Your task to perform on an android device: Clear the shopping cart on walmart. Search for usb-a to usb-b on walmart, select the first entry, and add it to the cart. Image 0: 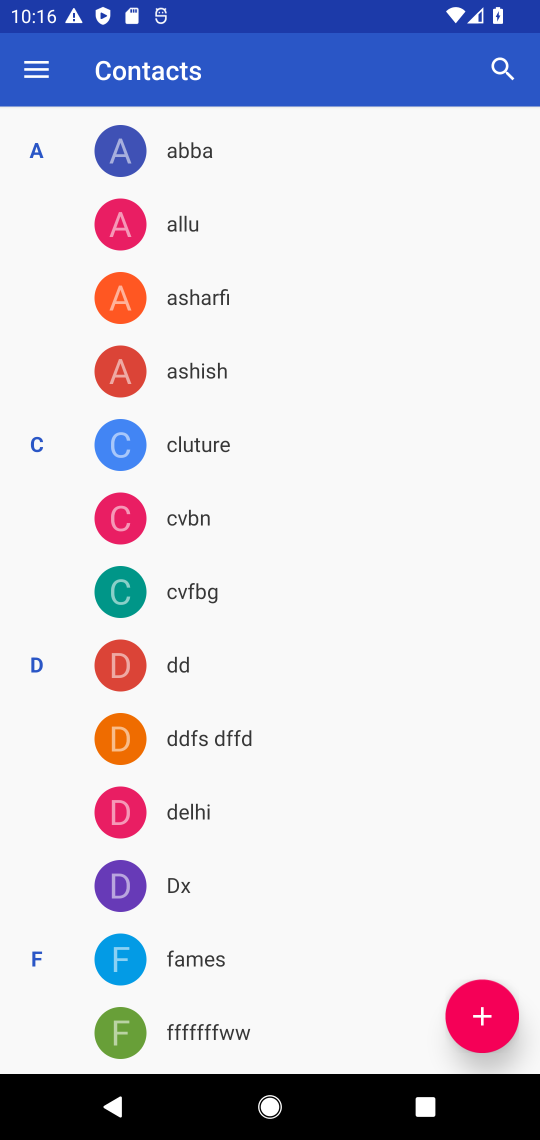
Step 0: press home button
Your task to perform on an android device: Clear the shopping cart on walmart. Search for usb-a to usb-b on walmart, select the first entry, and add it to the cart. Image 1: 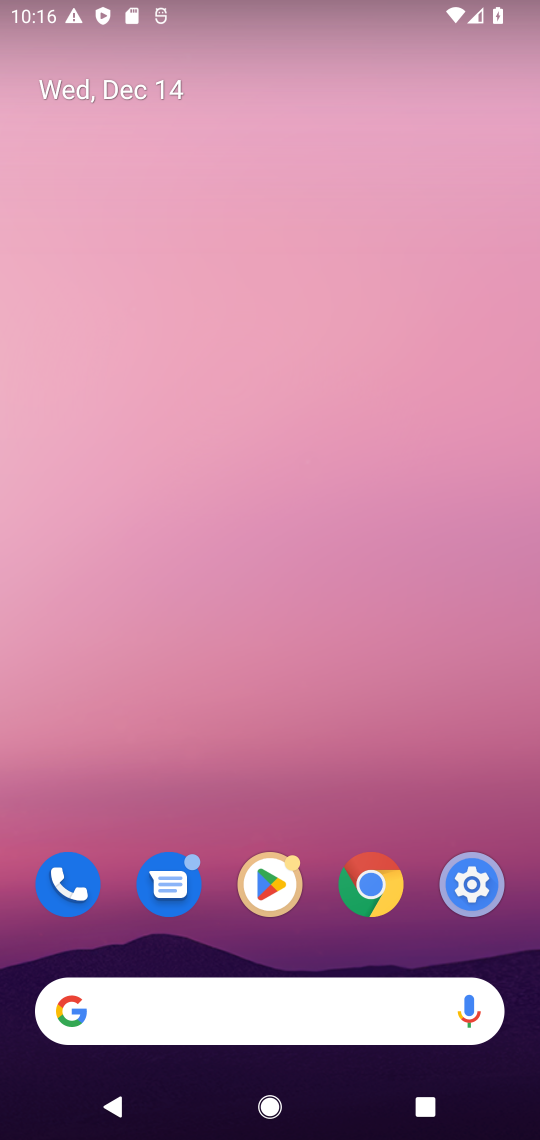
Step 1: click (384, 878)
Your task to perform on an android device: Clear the shopping cart on walmart. Search for usb-a to usb-b on walmart, select the first entry, and add it to the cart. Image 2: 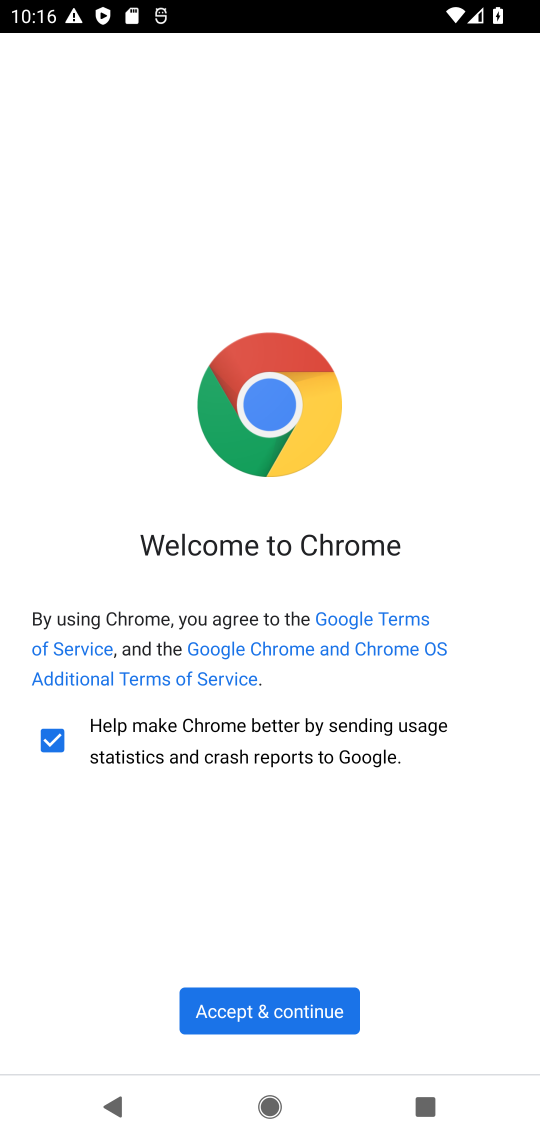
Step 2: click (308, 1014)
Your task to perform on an android device: Clear the shopping cart on walmart. Search for usb-a to usb-b on walmart, select the first entry, and add it to the cart. Image 3: 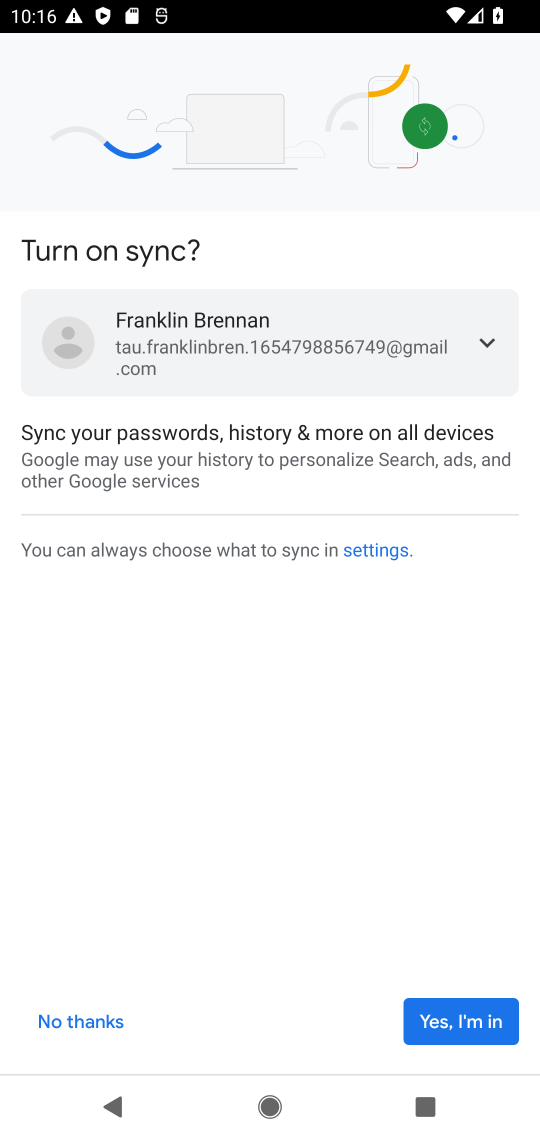
Step 3: click (453, 1014)
Your task to perform on an android device: Clear the shopping cart on walmart. Search for usb-a to usb-b on walmart, select the first entry, and add it to the cart. Image 4: 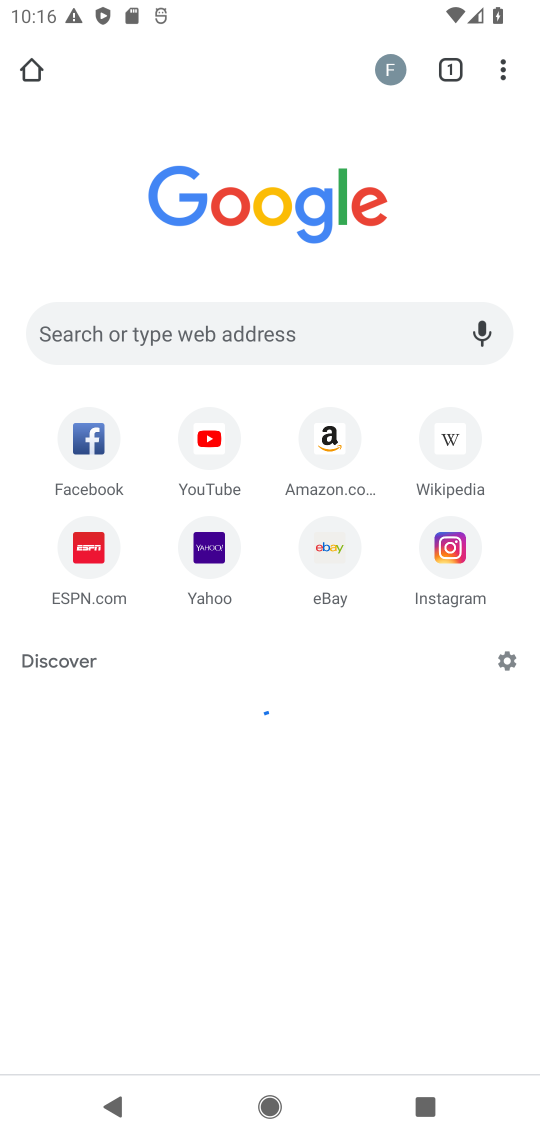
Step 4: click (333, 333)
Your task to perform on an android device: Clear the shopping cart on walmart. Search for usb-a to usb-b on walmart, select the first entry, and add it to the cart. Image 5: 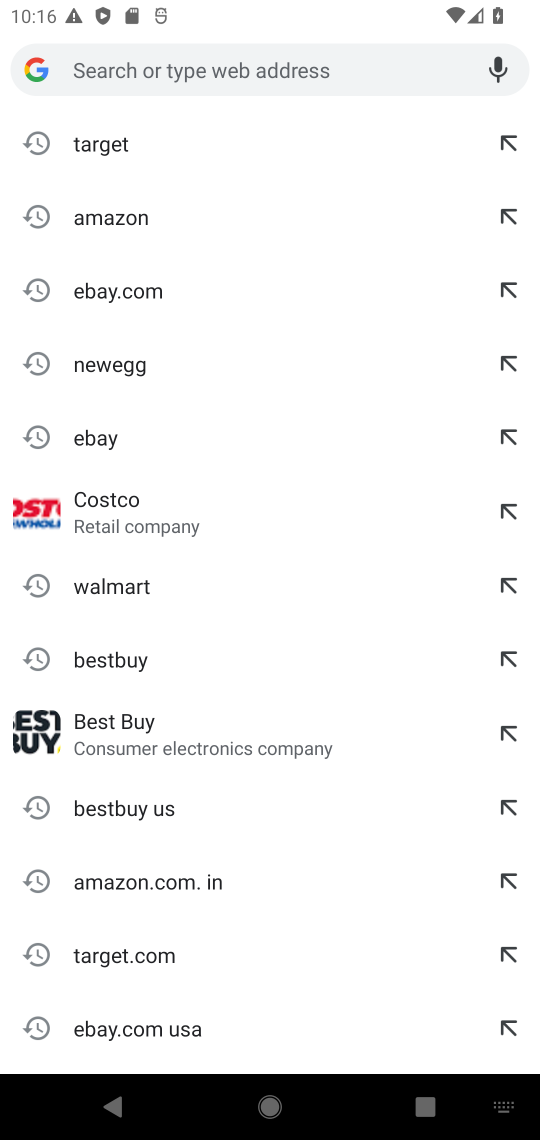
Step 5: click (129, 581)
Your task to perform on an android device: Clear the shopping cart on walmart. Search for usb-a to usb-b on walmart, select the first entry, and add it to the cart. Image 6: 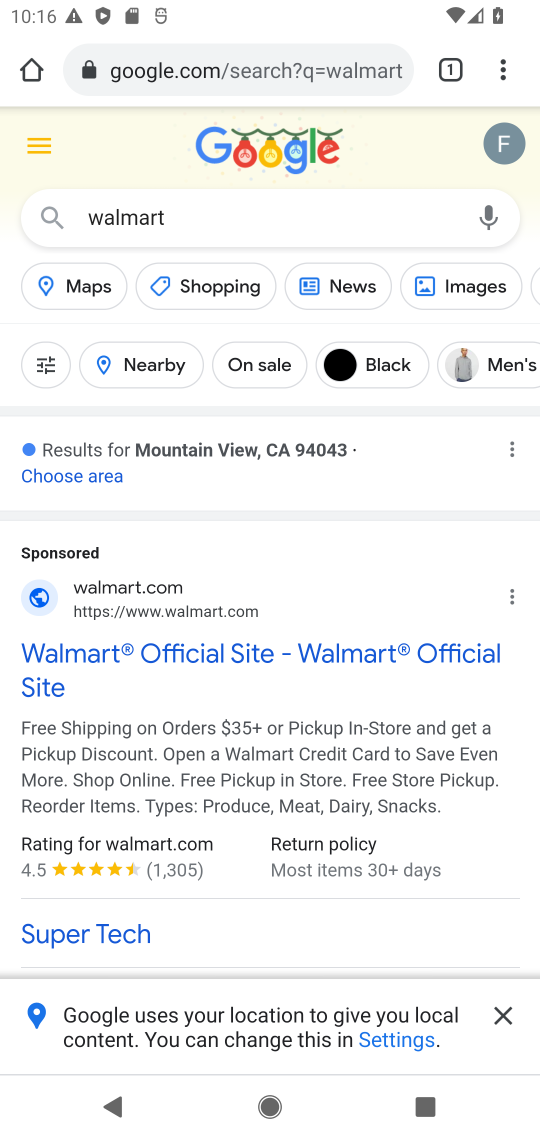
Step 6: drag from (291, 867) to (183, 496)
Your task to perform on an android device: Clear the shopping cart on walmart. Search for usb-a to usb-b on walmart, select the first entry, and add it to the cart. Image 7: 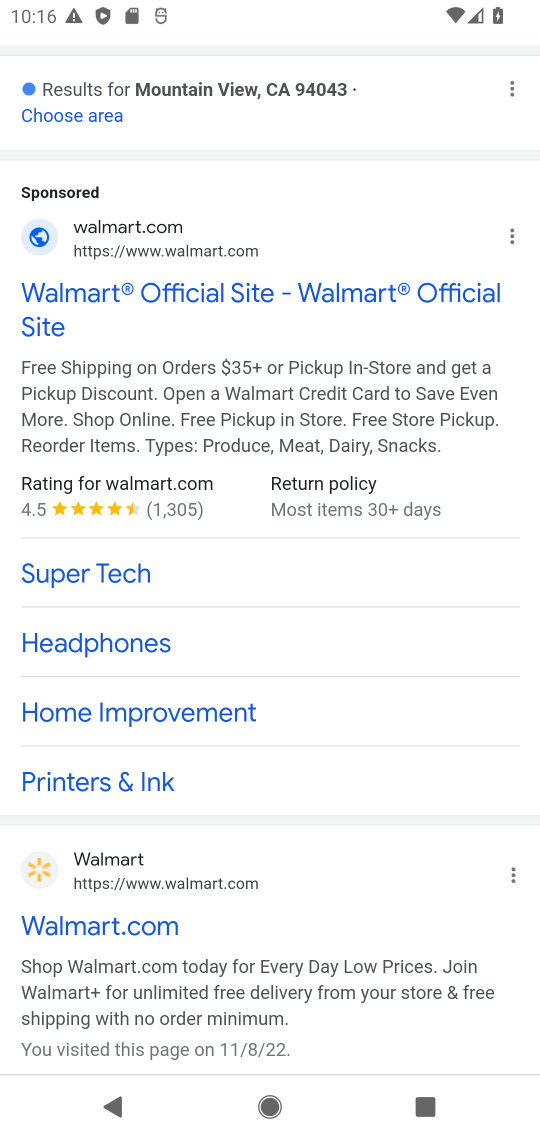
Step 7: click (187, 880)
Your task to perform on an android device: Clear the shopping cart on walmart. Search for usb-a to usb-b on walmart, select the first entry, and add it to the cart. Image 8: 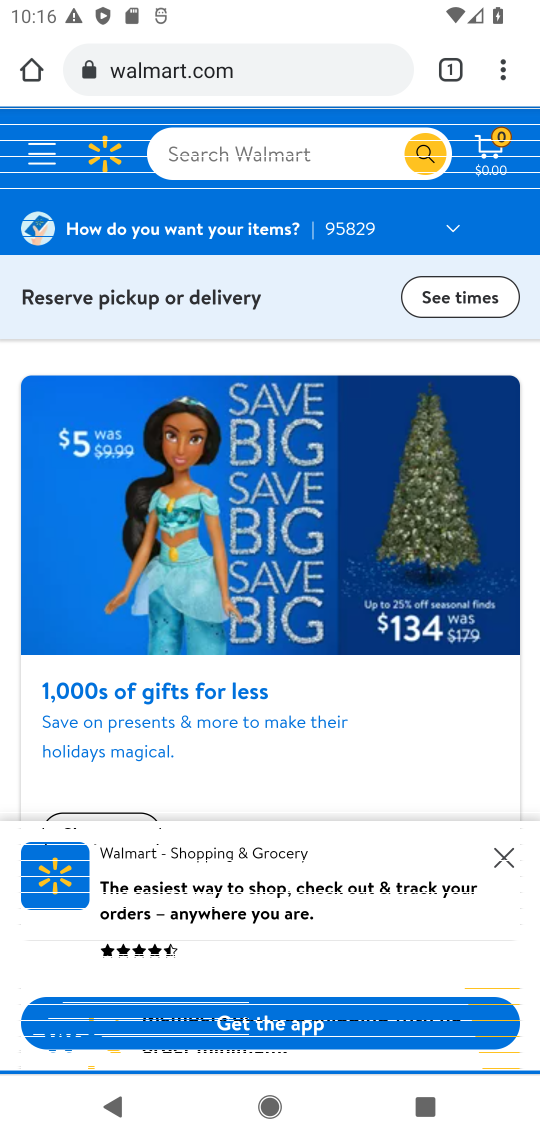
Step 8: click (368, 137)
Your task to perform on an android device: Clear the shopping cart on walmart. Search for usb-a to usb-b on walmart, select the first entry, and add it to the cart. Image 9: 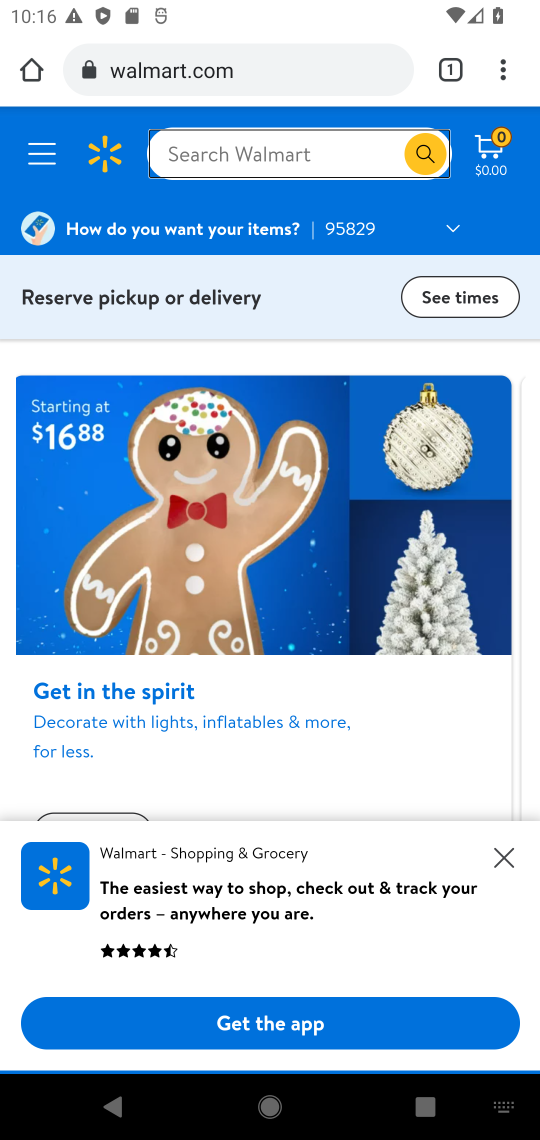
Step 9: click (481, 154)
Your task to perform on an android device: Clear the shopping cart on walmart. Search for usb-a to usb-b on walmart, select the first entry, and add it to the cart. Image 10: 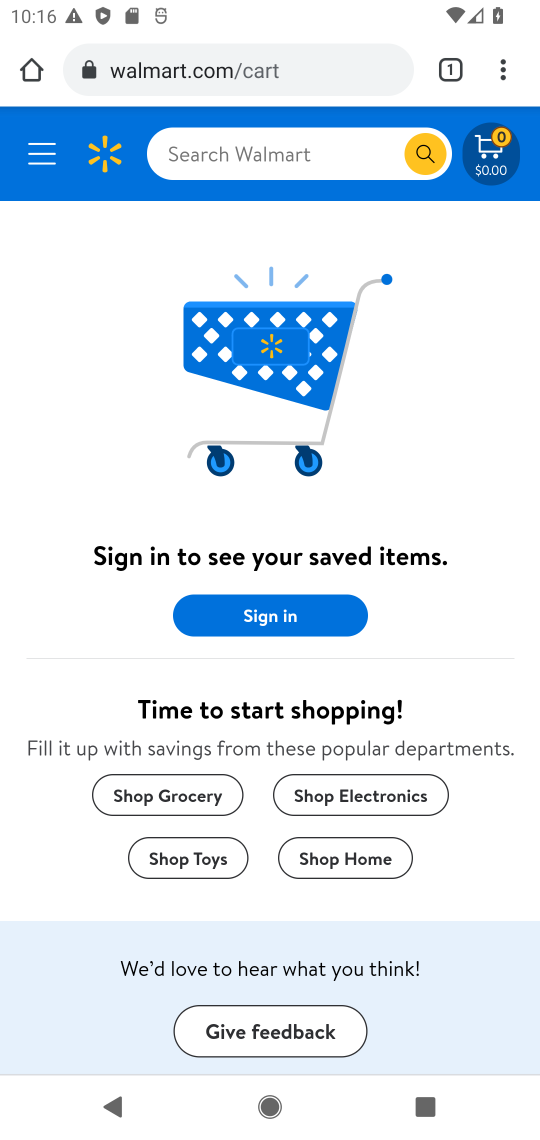
Step 10: click (292, 170)
Your task to perform on an android device: Clear the shopping cart on walmart. Search for usb-a to usb-b on walmart, select the first entry, and add it to the cart. Image 11: 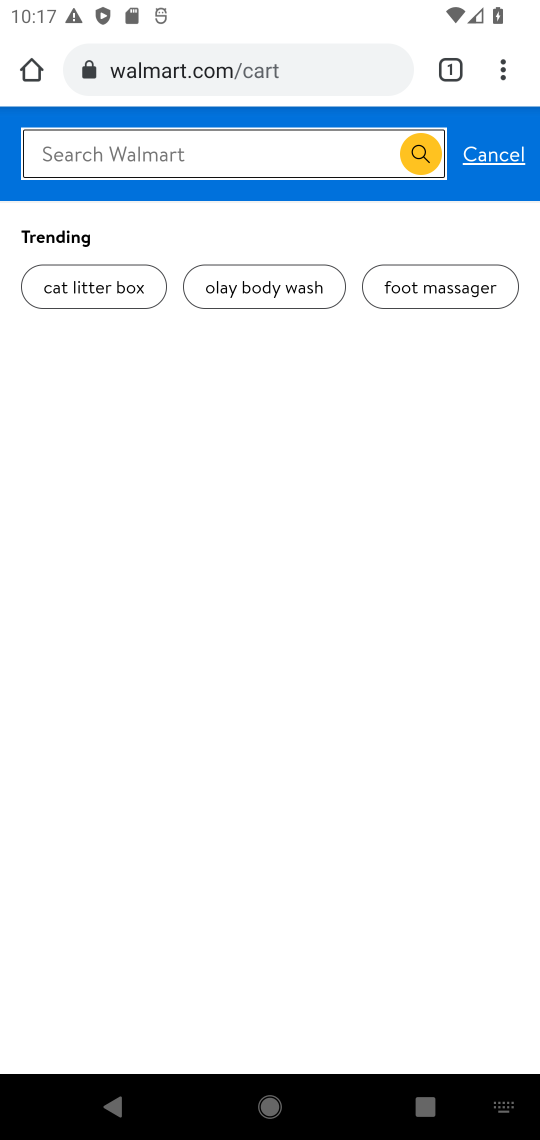
Step 11: press enter
Your task to perform on an android device: Clear the shopping cart on walmart. Search for usb-a to usb-b on walmart, select the first entry, and add it to the cart. Image 12: 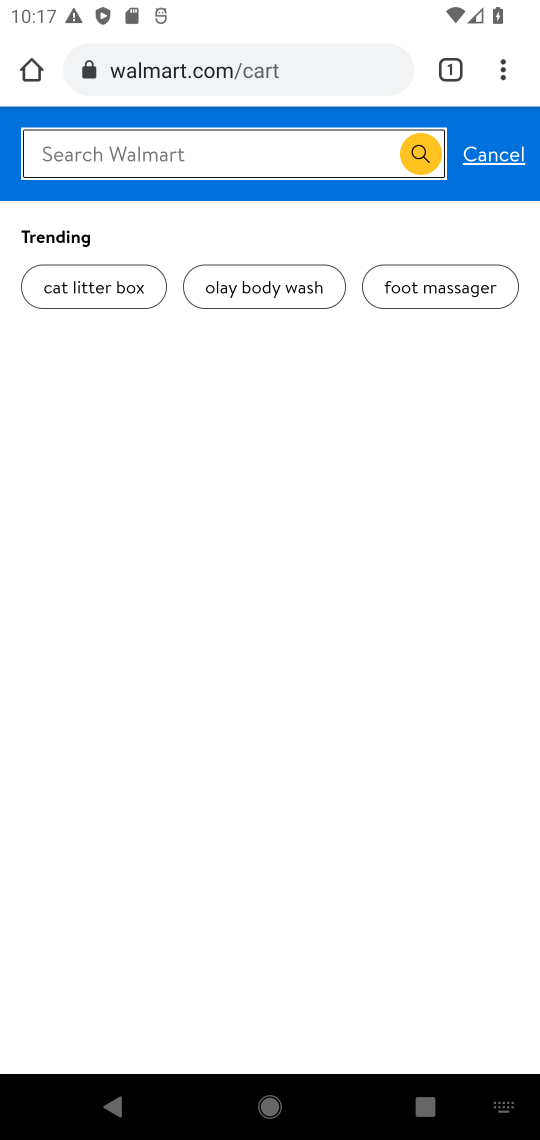
Step 12: type "usb-a to usb-b"
Your task to perform on an android device: Clear the shopping cart on walmart. Search for usb-a to usb-b on walmart, select the first entry, and add it to the cart. Image 13: 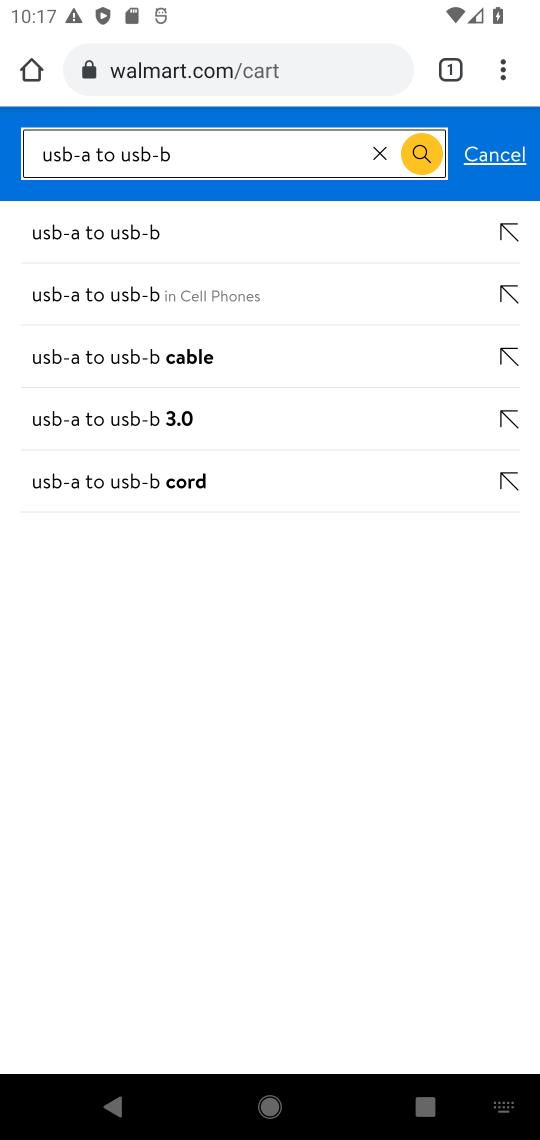
Step 13: click (103, 227)
Your task to perform on an android device: Clear the shopping cart on walmart. Search for usb-a to usb-b on walmart, select the first entry, and add it to the cart. Image 14: 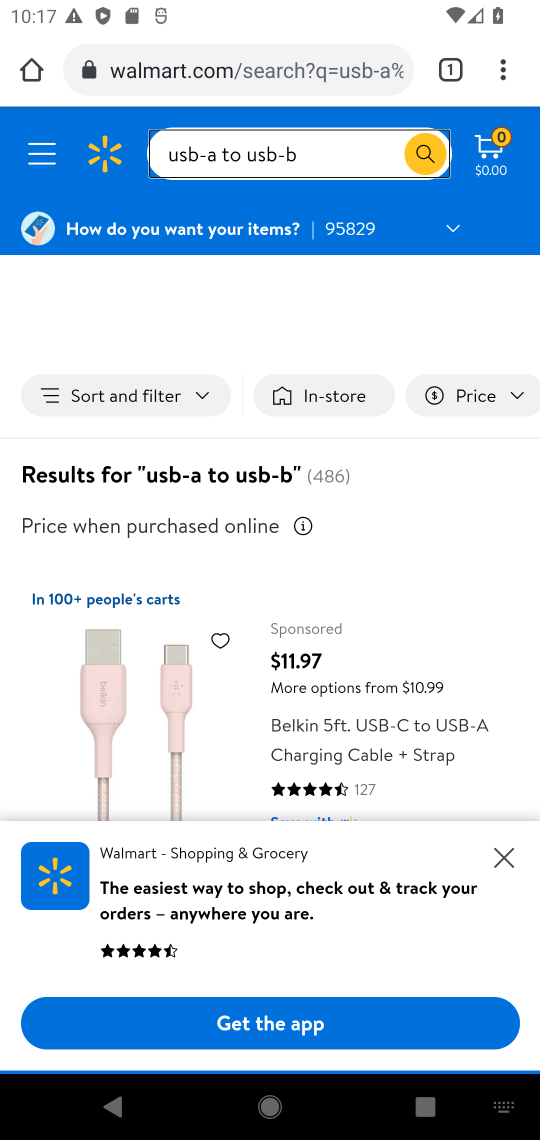
Step 14: click (504, 862)
Your task to perform on an android device: Clear the shopping cart on walmart. Search for usb-a to usb-b on walmart, select the first entry, and add it to the cart. Image 15: 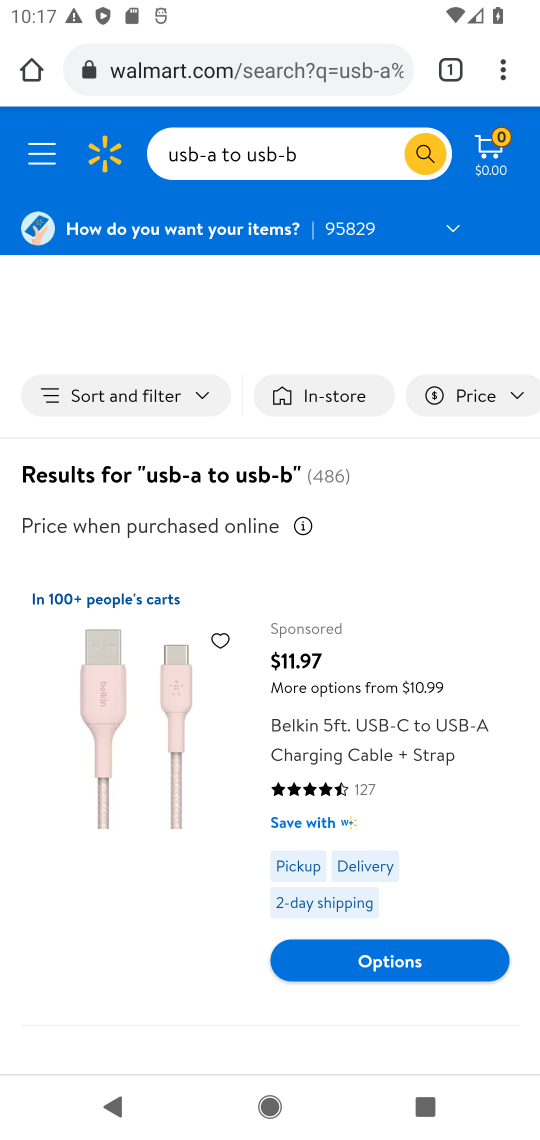
Step 15: drag from (473, 813) to (375, 278)
Your task to perform on an android device: Clear the shopping cart on walmart. Search for usb-a to usb-b on walmart, select the first entry, and add it to the cart. Image 16: 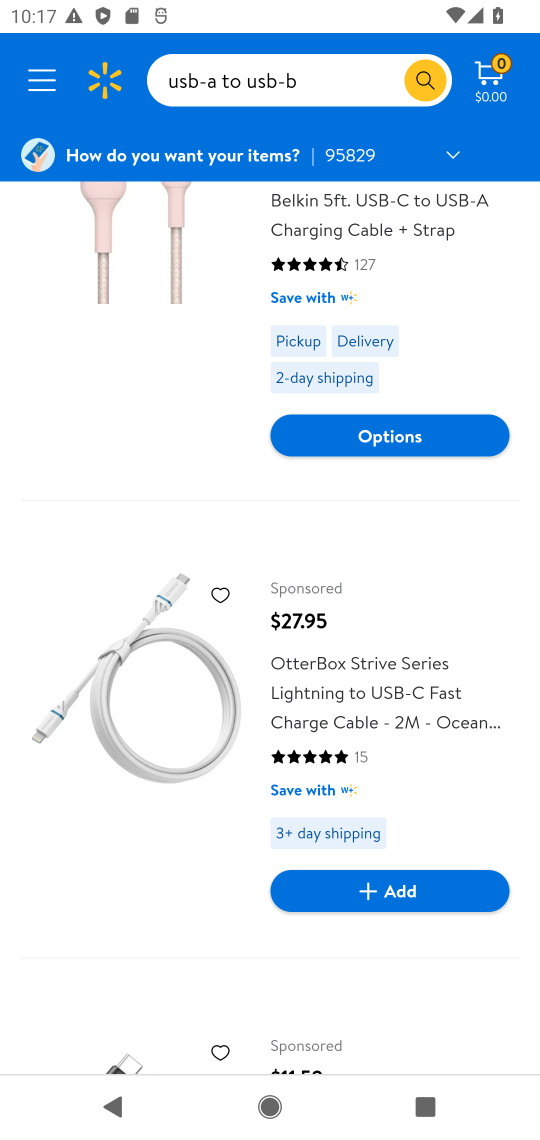
Step 16: drag from (388, 702) to (389, 407)
Your task to perform on an android device: Clear the shopping cart on walmart. Search for usb-a to usb-b on walmart, select the first entry, and add it to the cart. Image 17: 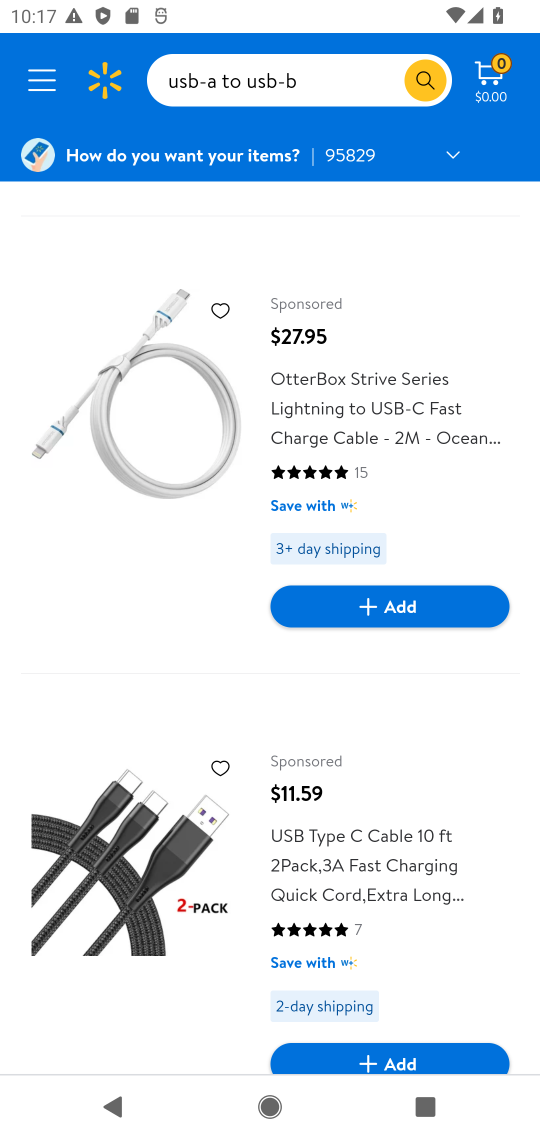
Step 17: drag from (349, 860) to (407, 324)
Your task to perform on an android device: Clear the shopping cart on walmart. Search for usb-a to usb-b on walmart, select the first entry, and add it to the cart. Image 18: 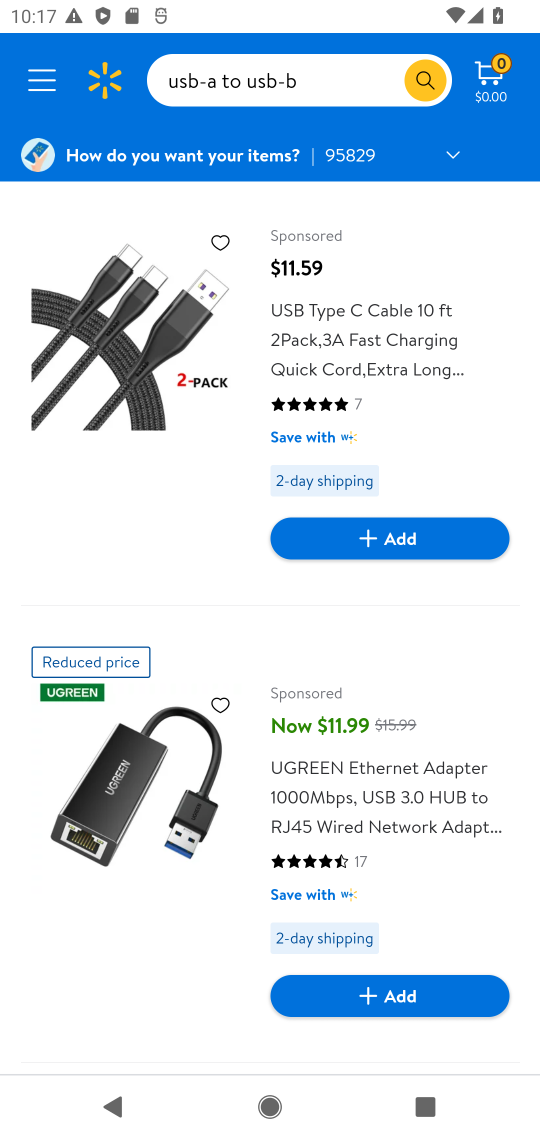
Step 18: drag from (373, 806) to (397, 247)
Your task to perform on an android device: Clear the shopping cart on walmart. Search for usb-a to usb-b on walmart, select the first entry, and add it to the cart. Image 19: 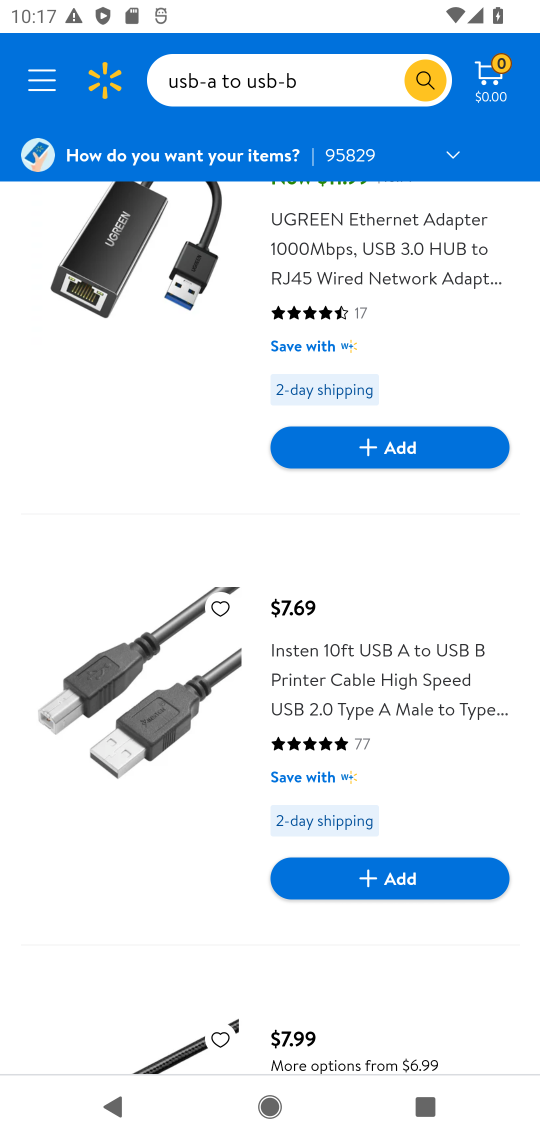
Step 19: click (158, 696)
Your task to perform on an android device: Clear the shopping cart on walmart. Search for usb-a to usb-b on walmart, select the first entry, and add it to the cart. Image 20: 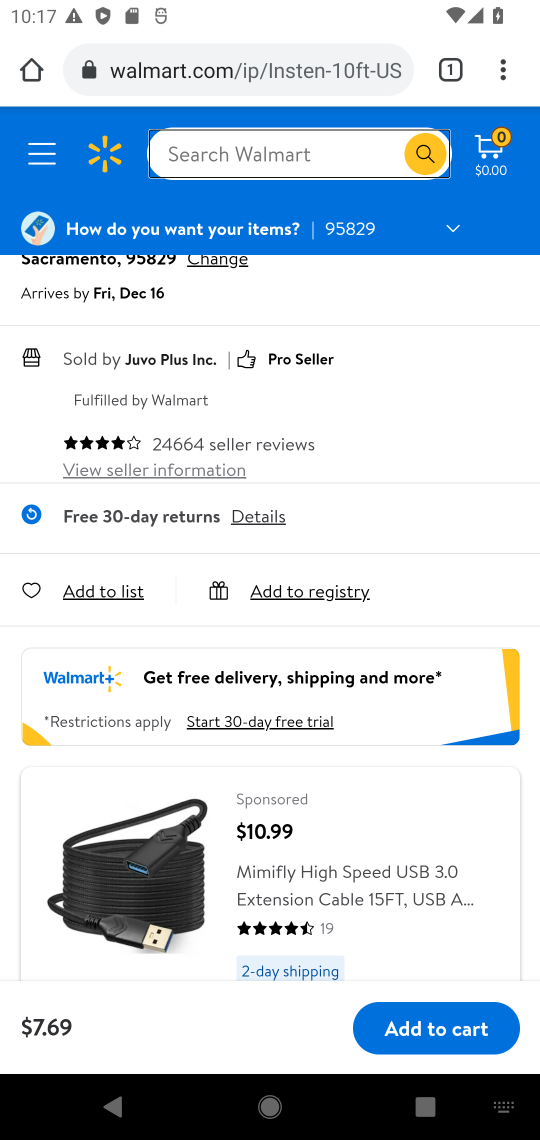
Step 20: drag from (453, 458) to (508, 547)
Your task to perform on an android device: Clear the shopping cart on walmart. Search for usb-a to usb-b on walmart, select the first entry, and add it to the cart. Image 21: 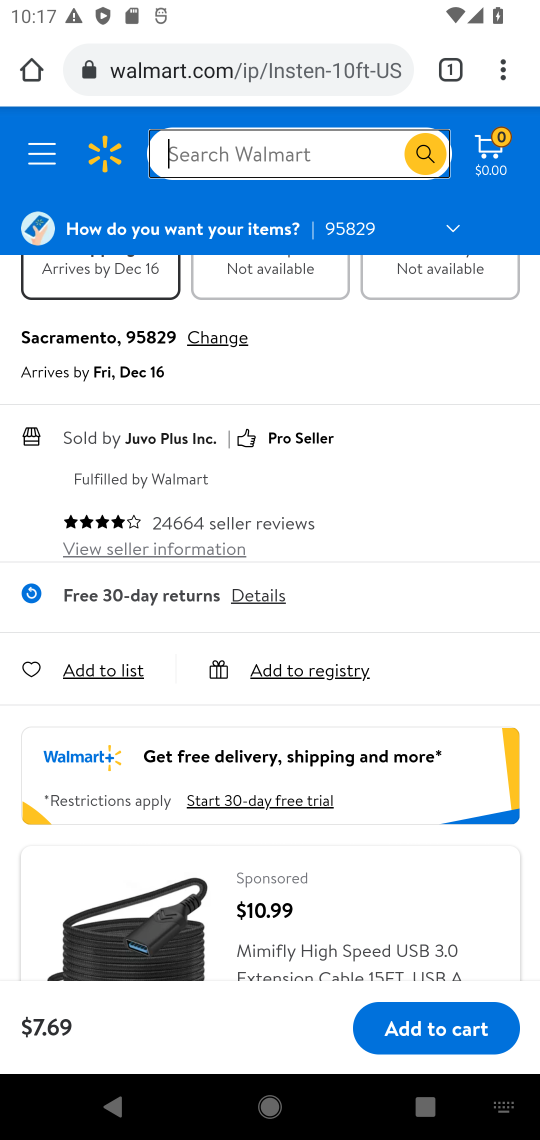
Step 21: click (428, 1029)
Your task to perform on an android device: Clear the shopping cart on walmart. Search for usb-a to usb-b on walmart, select the first entry, and add it to the cart. Image 22: 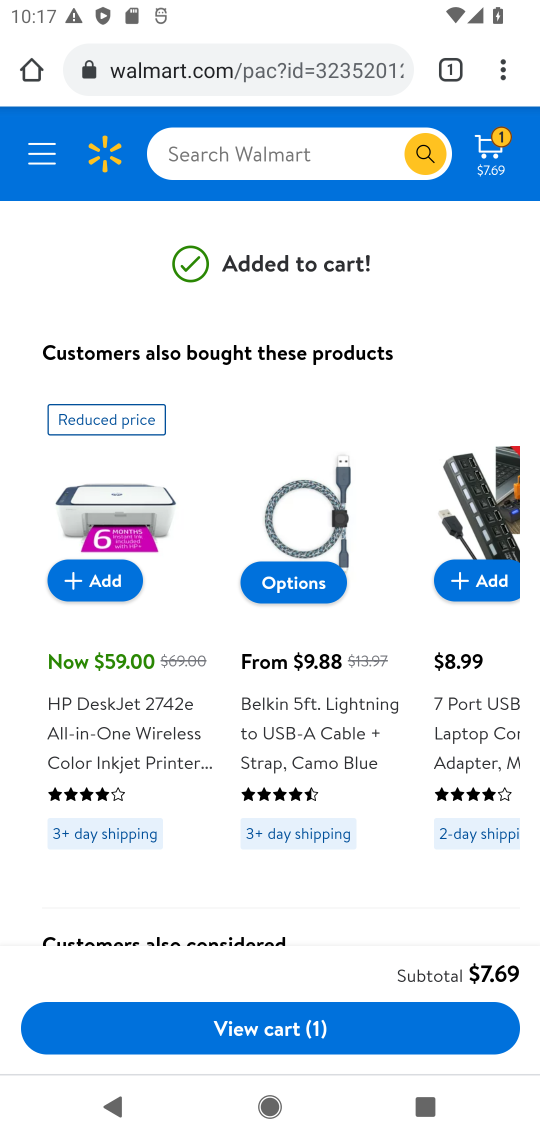
Step 22: click (260, 1022)
Your task to perform on an android device: Clear the shopping cart on walmart. Search for usb-a to usb-b on walmart, select the first entry, and add it to the cart. Image 23: 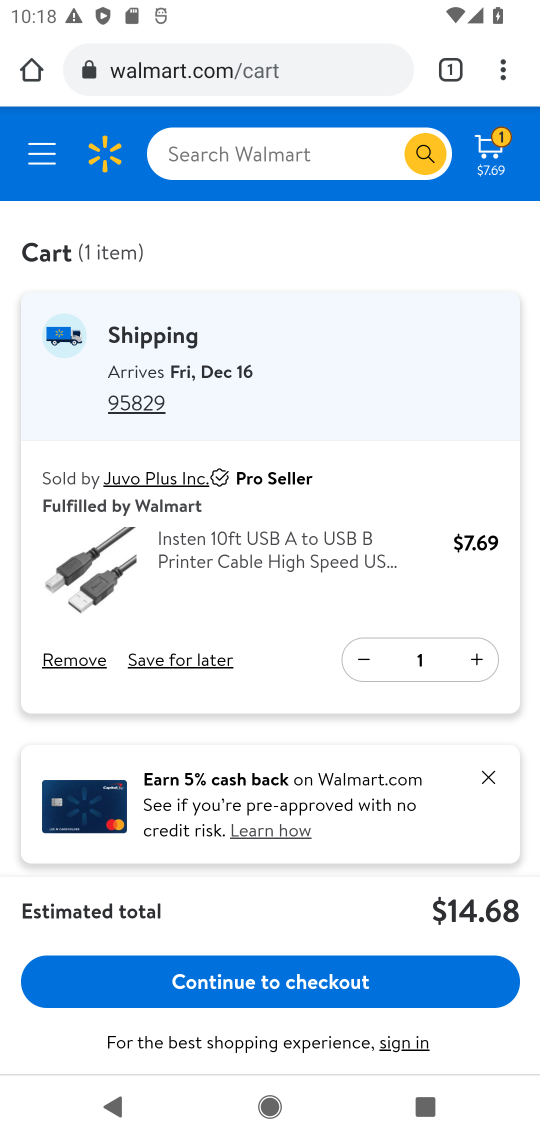
Step 23: task complete